Your task to perform on an android device: Show me the alarms in the clock app Image 0: 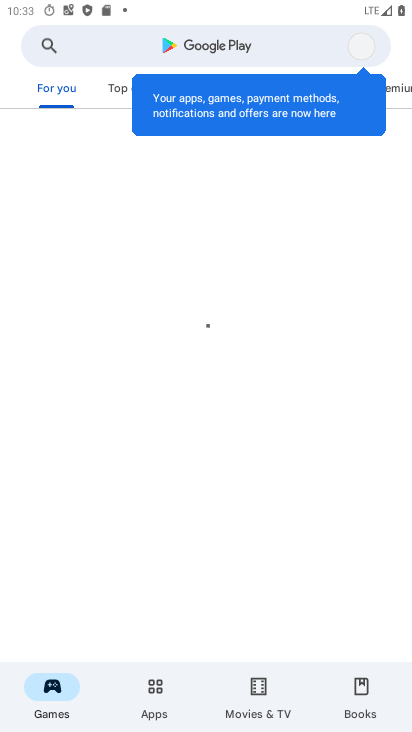
Step 0: press home button
Your task to perform on an android device: Show me the alarms in the clock app Image 1: 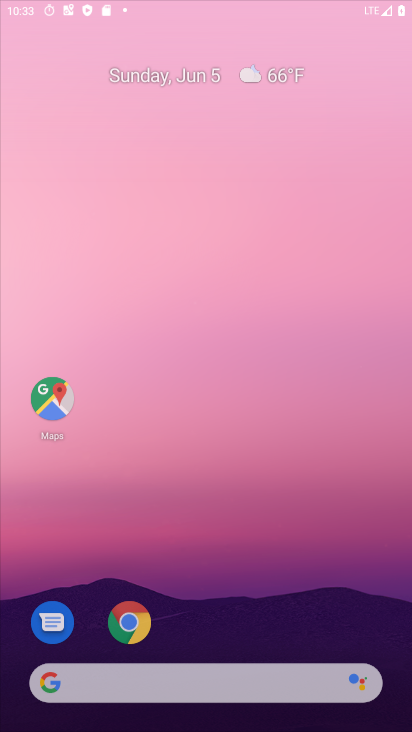
Step 1: press home button
Your task to perform on an android device: Show me the alarms in the clock app Image 2: 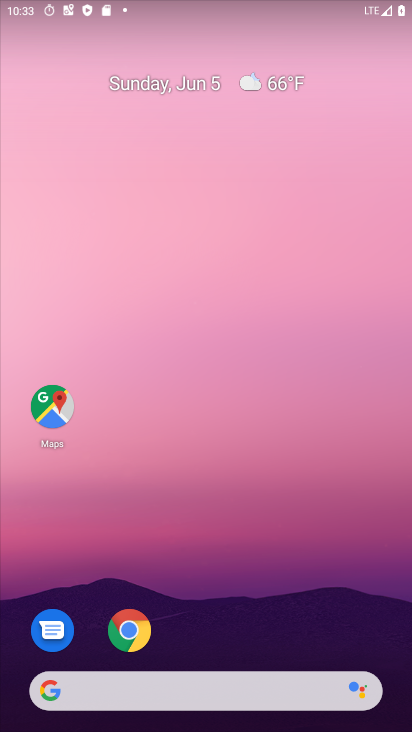
Step 2: drag from (226, 730) to (210, 0)
Your task to perform on an android device: Show me the alarms in the clock app Image 3: 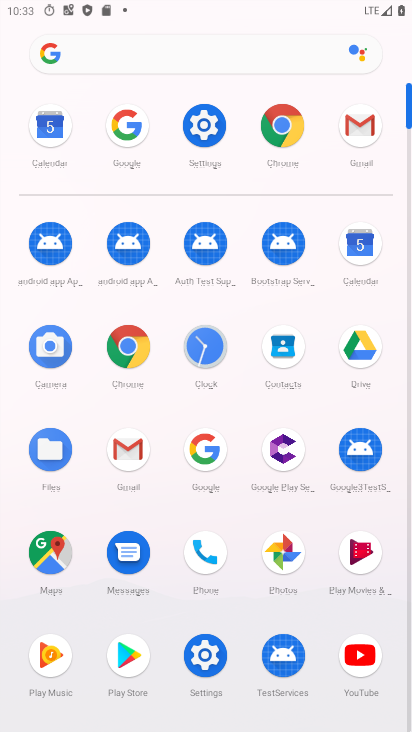
Step 3: click (195, 350)
Your task to perform on an android device: Show me the alarms in the clock app Image 4: 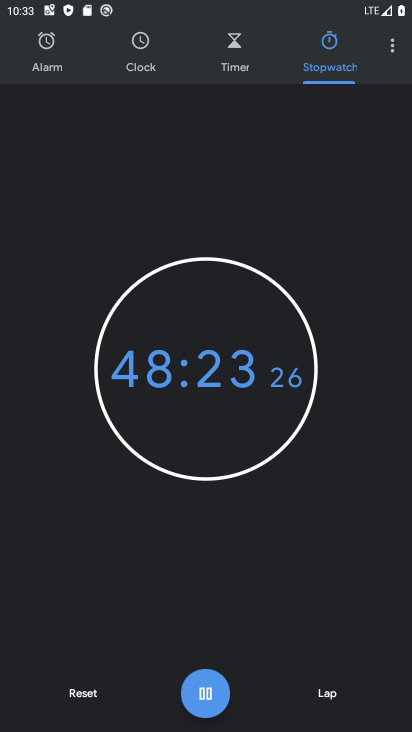
Step 4: click (48, 52)
Your task to perform on an android device: Show me the alarms in the clock app Image 5: 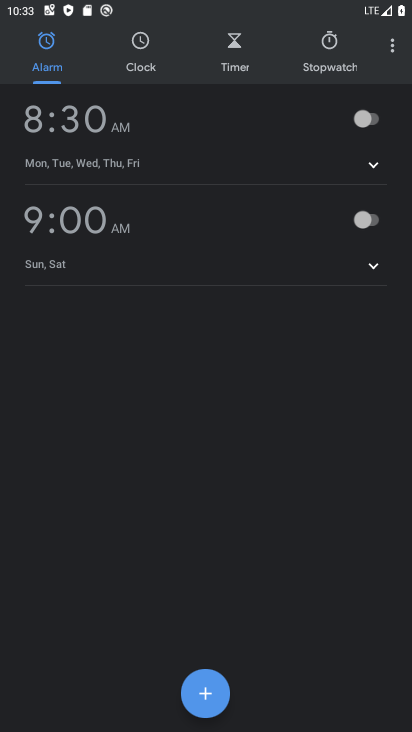
Step 5: task complete